Your task to perform on an android device: Open Youtube and go to the subscriptions tab Image 0: 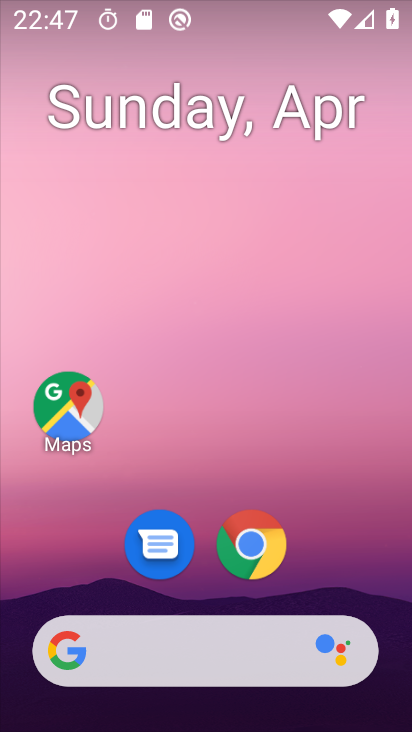
Step 0: drag from (329, 470) to (351, 281)
Your task to perform on an android device: Open Youtube and go to the subscriptions tab Image 1: 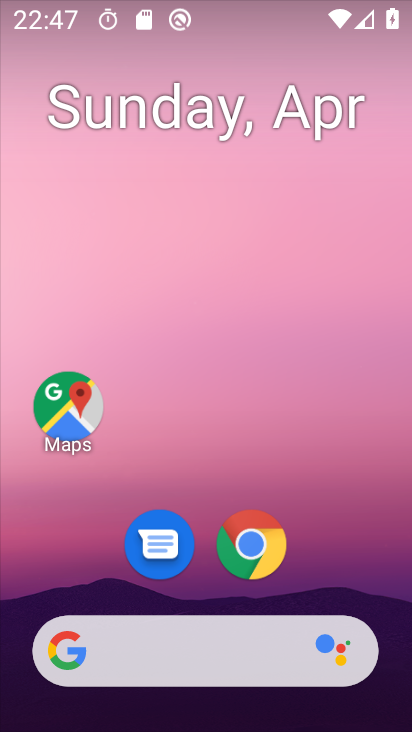
Step 1: drag from (343, 389) to (347, 183)
Your task to perform on an android device: Open Youtube and go to the subscriptions tab Image 2: 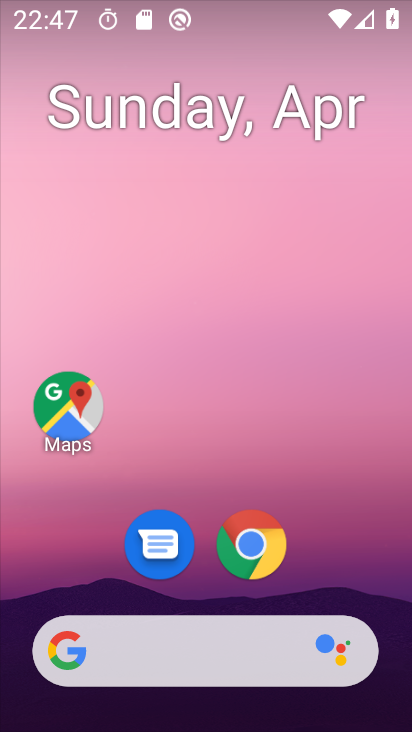
Step 2: drag from (354, 545) to (369, 184)
Your task to perform on an android device: Open Youtube and go to the subscriptions tab Image 3: 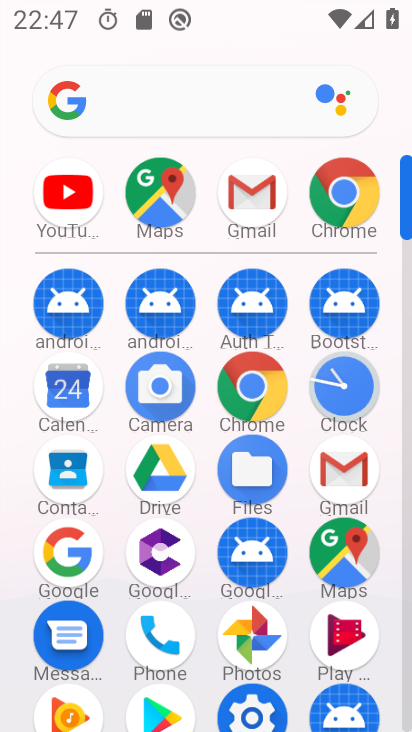
Step 3: drag from (287, 618) to (307, 183)
Your task to perform on an android device: Open Youtube and go to the subscriptions tab Image 4: 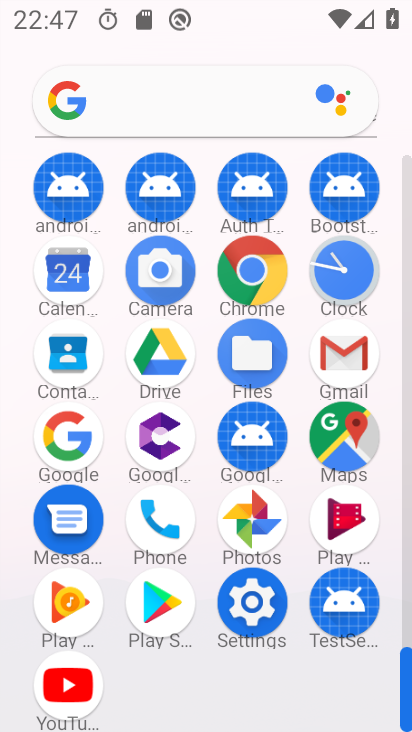
Step 4: click (65, 654)
Your task to perform on an android device: Open Youtube and go to the subscriptions tab Image 5: 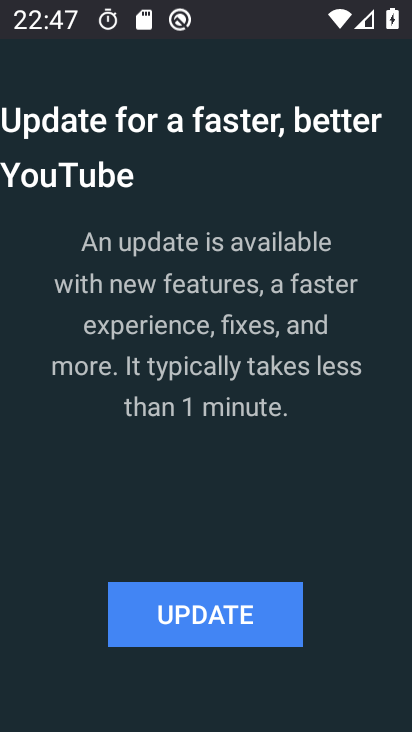
Step 5: click (243, 605)
Your task to perform on an android device: Open Youtube and go to the subscriptions tab Image 6: 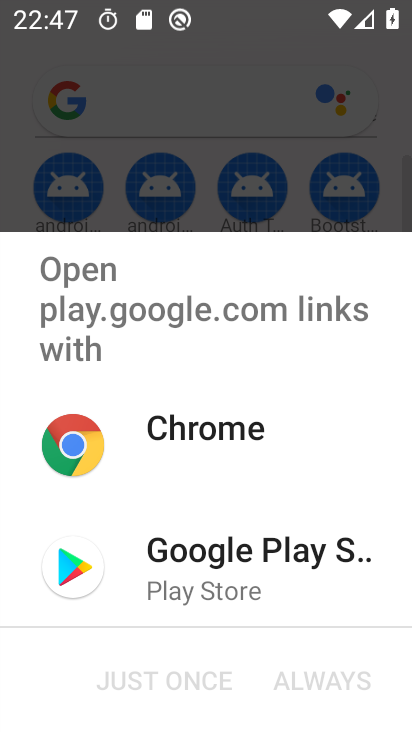
Step 6: press back button
Your task to perform on an android device: Open Youtube and go to the subscriptions tab Image 7: 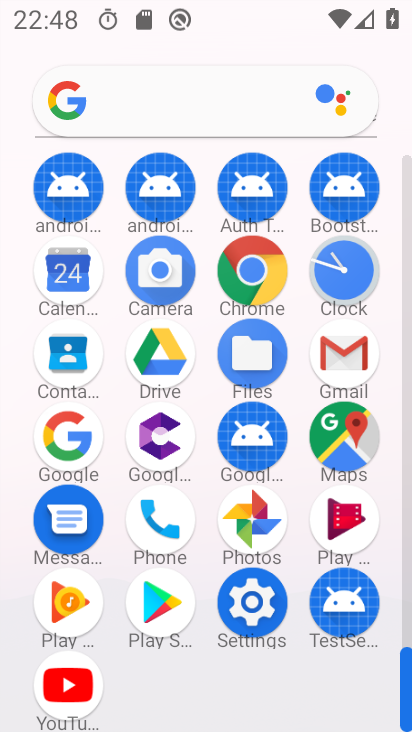
Step 7: click (62, 683)
Your task to perform on an android device: Open Youtube and go to the subscriptions tab Image 8: 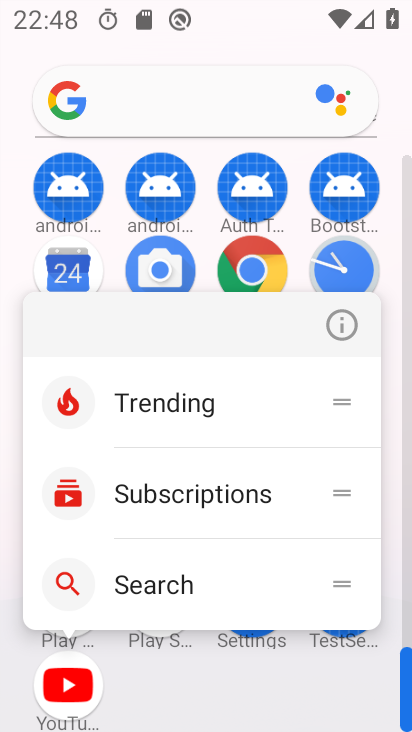
Step 8: click (62, 683)
Your task to perform on an android device: Open Youtube and go to the subscriptions tab Image 9: 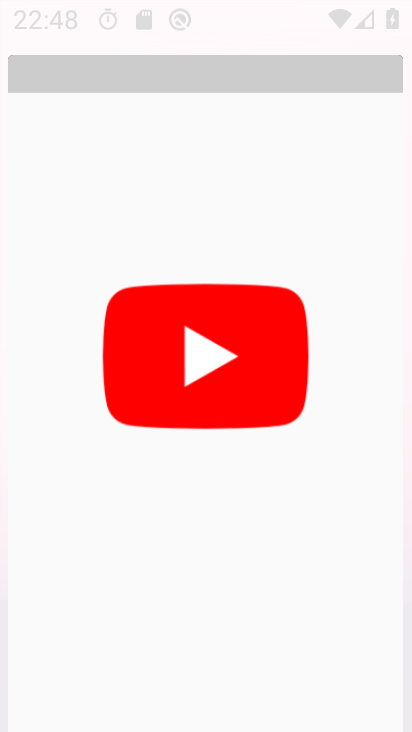
Step 9: click (62, 683)
Your task to perform on an android device: Open Youtube and go to the subscriptions tab Image 10: 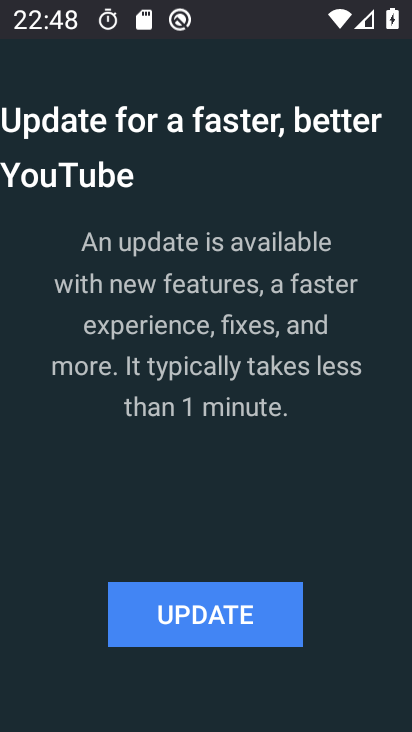
Step 10: click (29, 683)
Your task to perform on an android device: Open Youtube and go to the subscriptions tab Image 11: 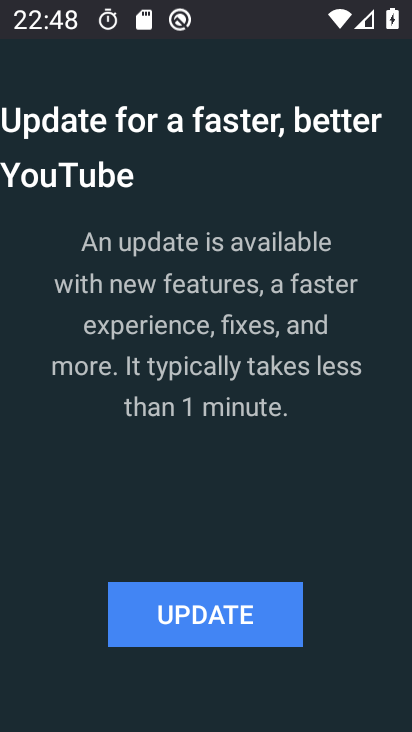
Step 11: task complete